Your task to perform on an android device: Open my contact list Image 0: 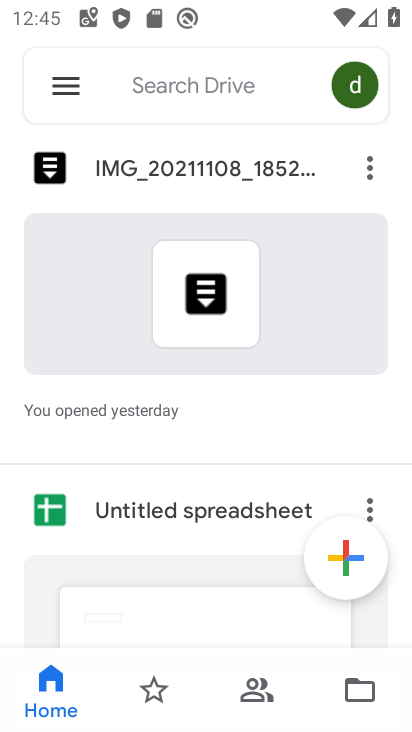
Step 0: press home button
Your task to perform on an android device: Open my contact list Image 1: 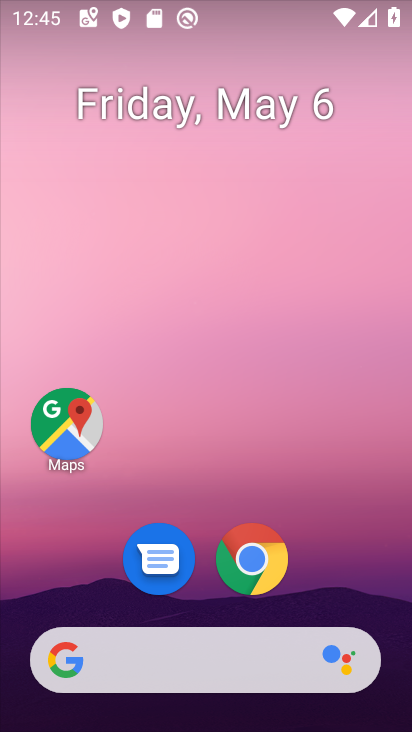
Step 1: drag from (354, 584) to (261, 102)
Your task to perform on an android device: Open my contact list Image 2: 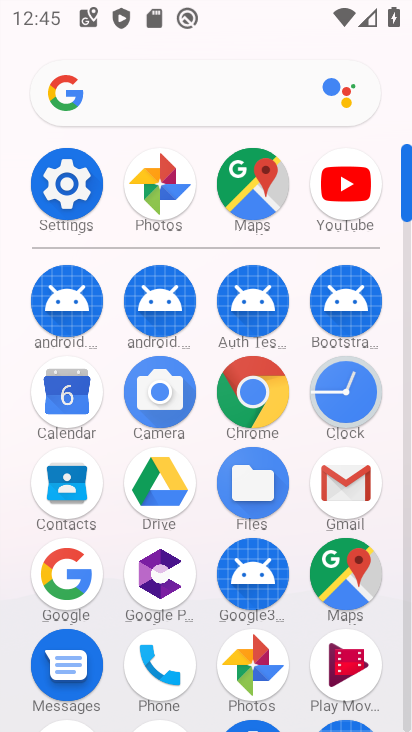
Step 2: click (64, 486)
Your task to perform on an android device: Open my contact list Image 3: 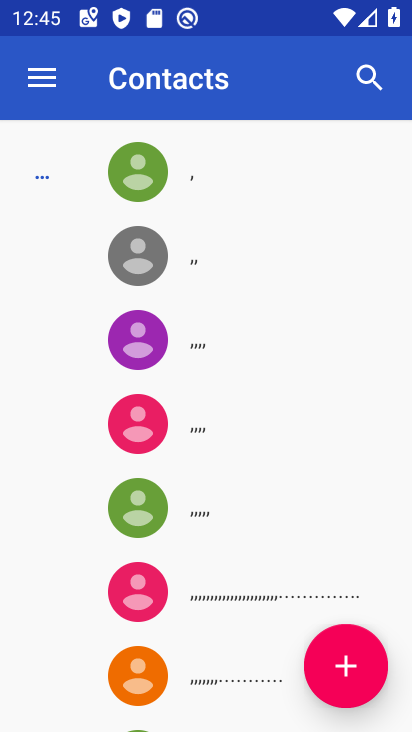
Step 3: task complete